Your task to perform on an android device: Play the last video I watched on Youtube Image 0: 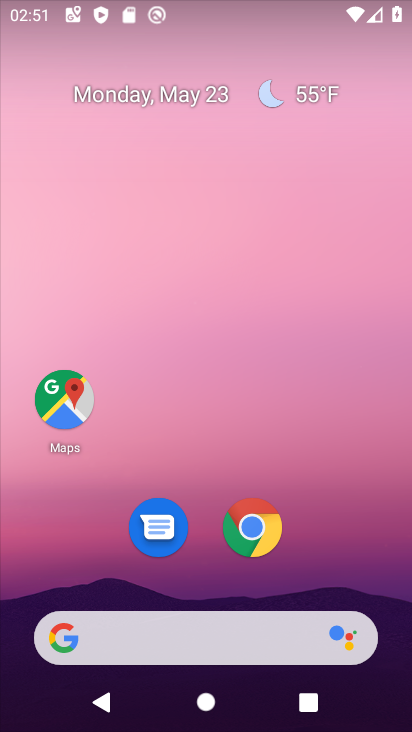
Step 0: drag from (343, 561) to (283, 75)
Your task to perform on an android device: Play the last video I watched on Youtube Image 1: 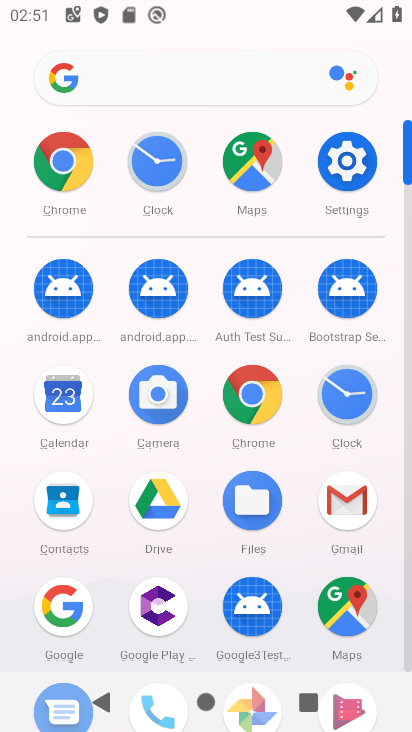
Step 1: drag from (3, 544) to (7, 236)
Your task to perform on an android device: Play the last video I watched on Youtube Image 2: 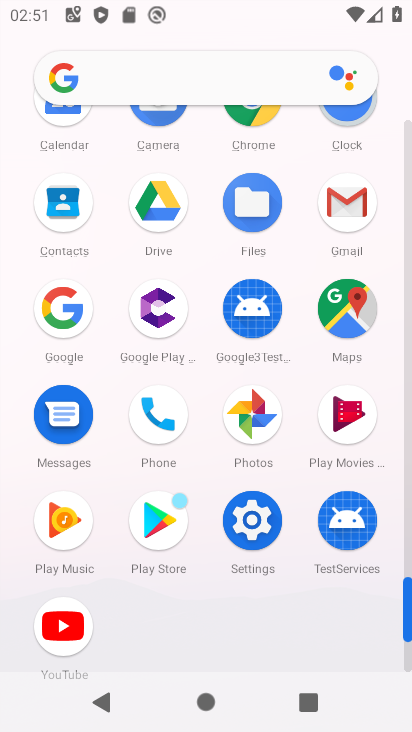
Step 2: click (55, 626)
Your task to perform on an android device: Play the last video I watched on Youtube Image 3: 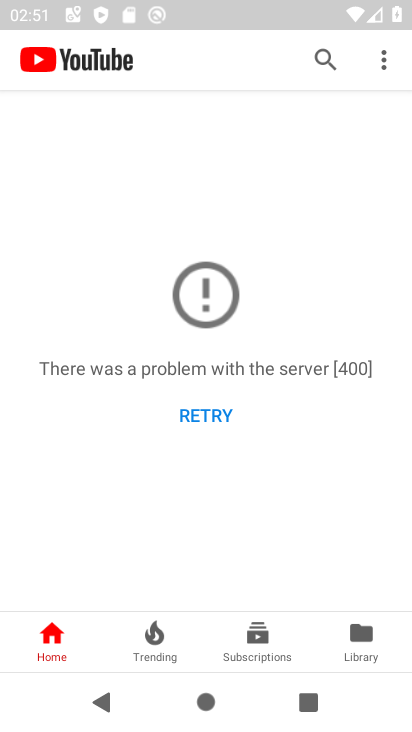
Step 3: click (377, 637)
Your task to perform on an android device: Play the last video I watched on Youtube Image 4: 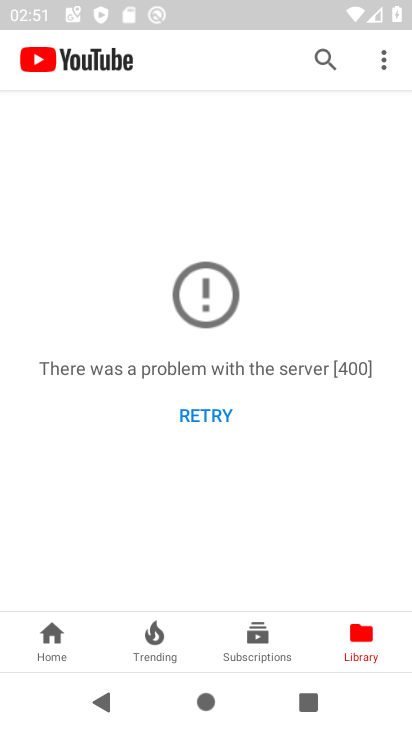
Step 4: click (377, 637)
Your task to perform on an android device: Play the last video I watched on Youtube Image 5: 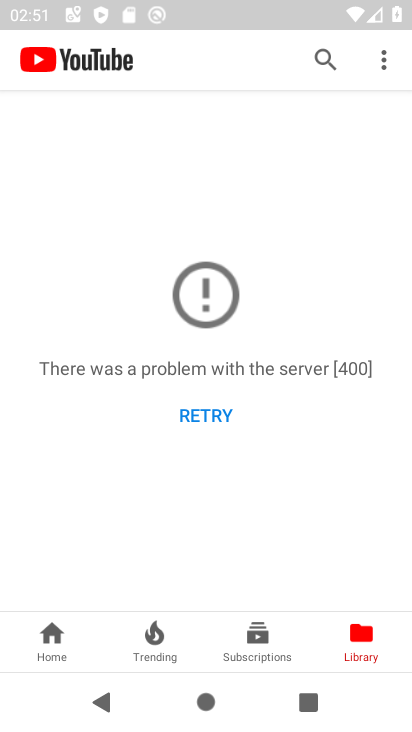
Step 5: click (34, 641)
Your task to perform on an android device: Play the last video I watched on Youtube Image 6: 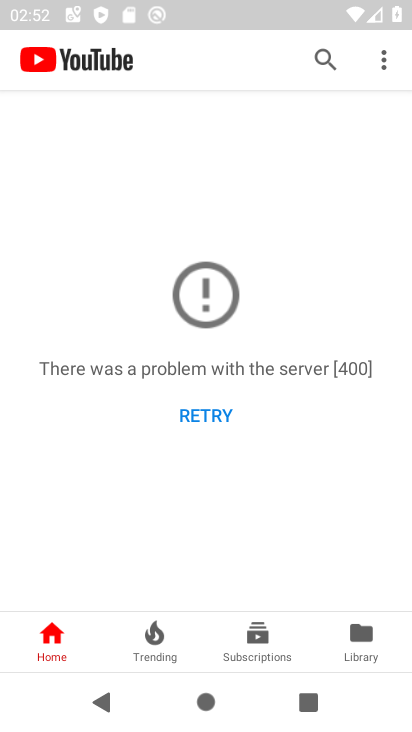
Step 6: task complete